Your task to perform on an android device: open app "Spotify: Music and Podcasts" Image 0: 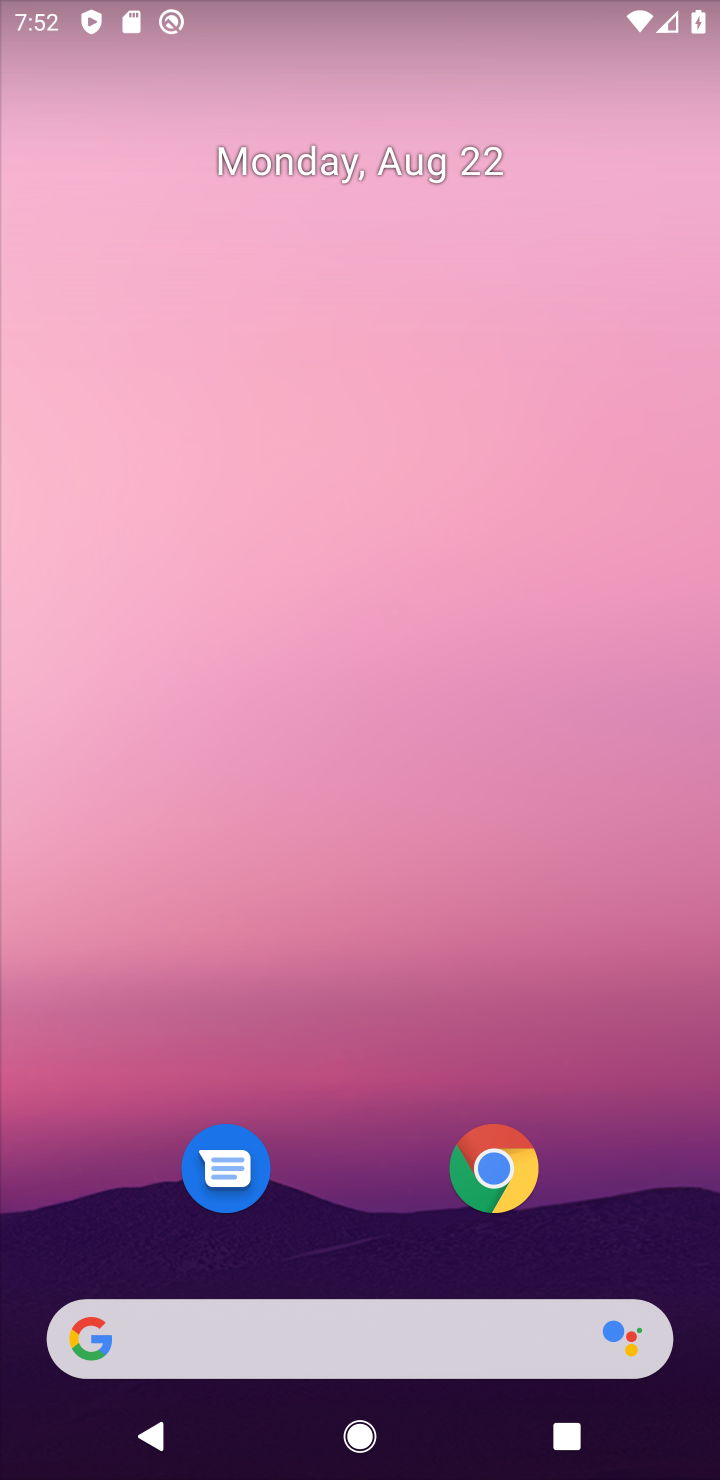
Step 0: drag from (598, 630) to (549, 10)
Your task to perform on an android device: open app "Spotify: Music and Podcasts" Image 1: 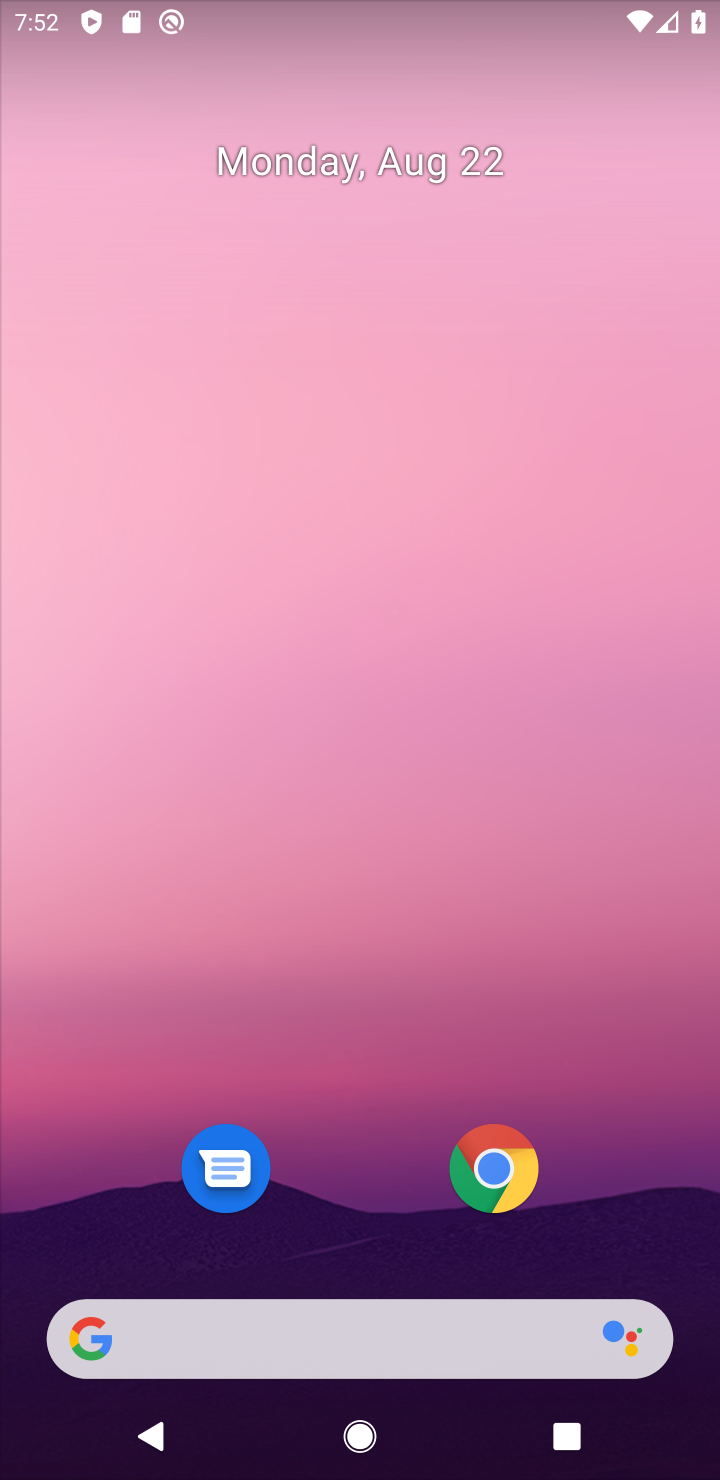
Step 1: drag from (674, 1243) to (616, 184)
Your task to perform on an android device: open app "Spotify: Music and Podcasts" Image 2: 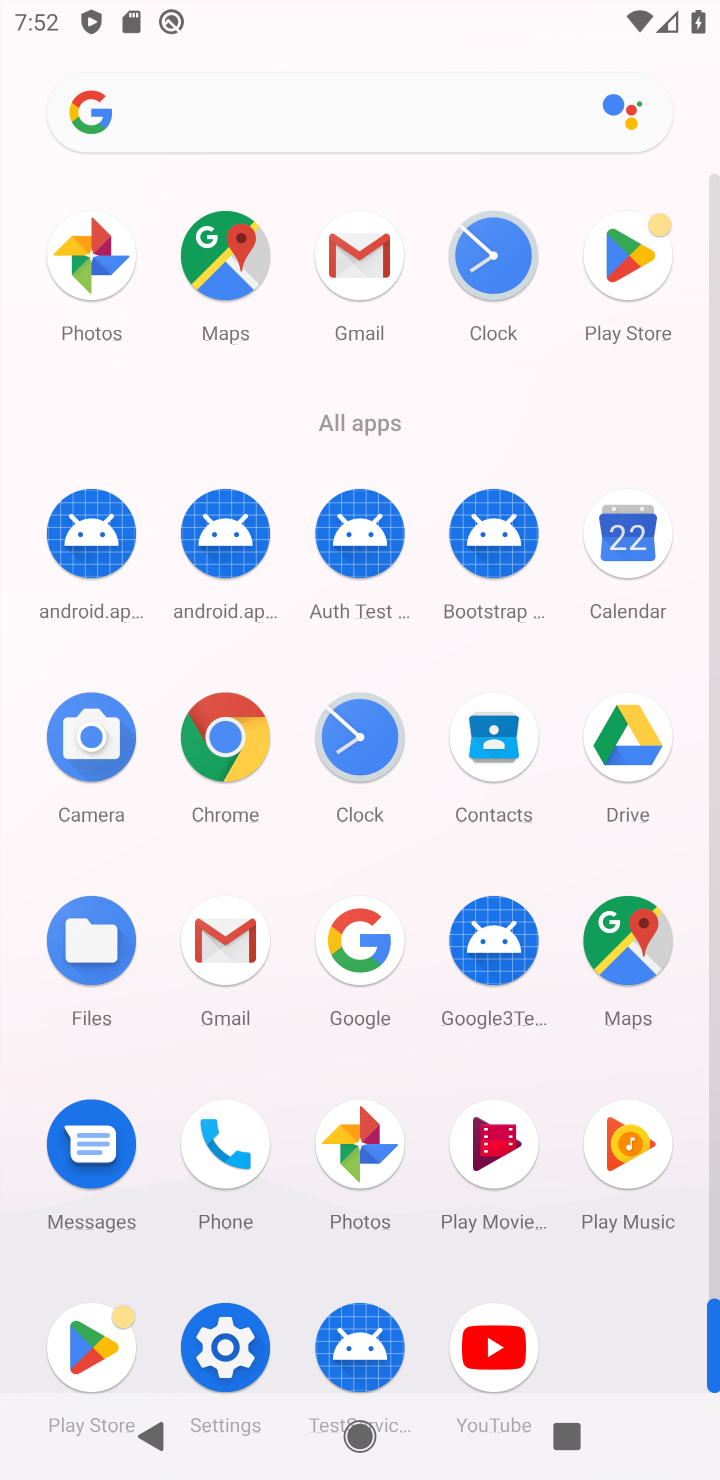
Step 2: click (629, 261)
Your task to perform on an android device: open app "Spotify: Music and Podcasts" Image 3: 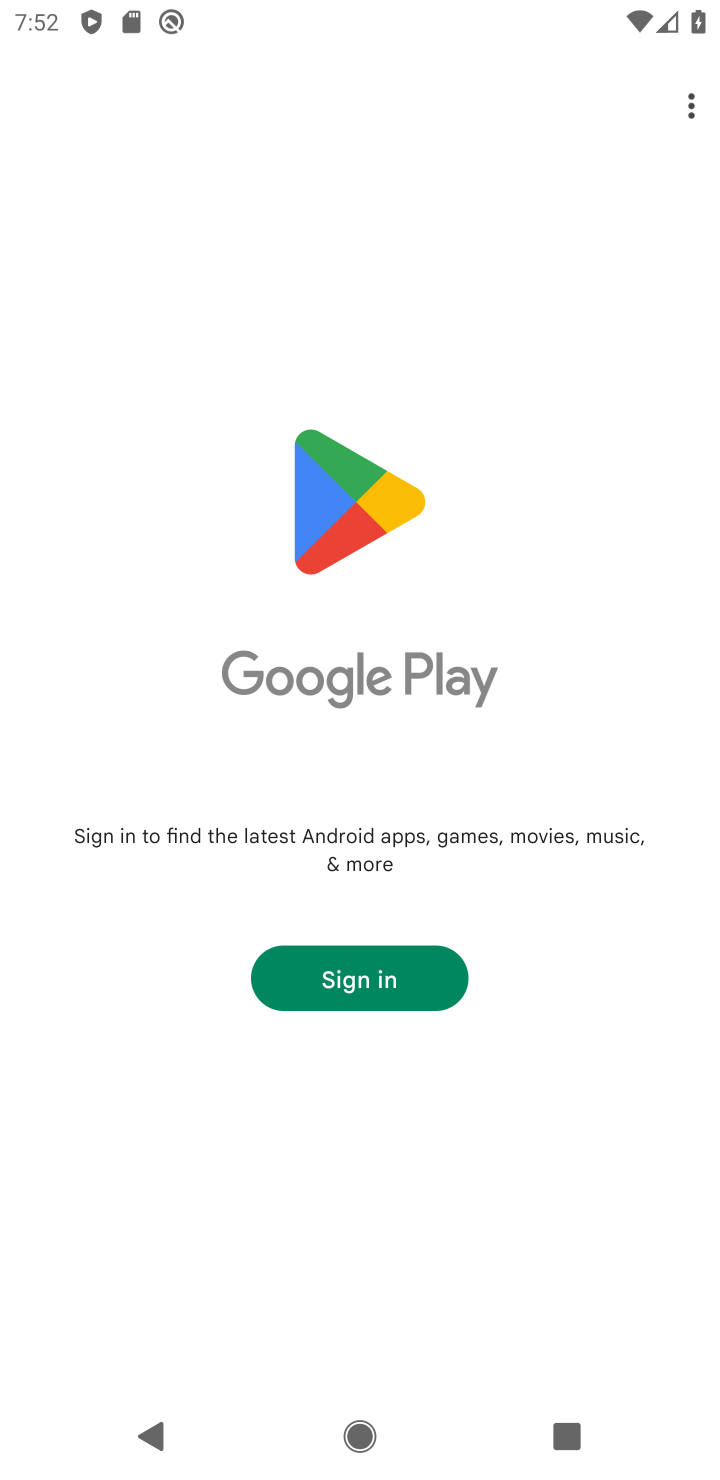
Step 3: drag from (552, 925) to (568, 235)
Your task to perform on an android device: open app "Spotify: Music and Podcasts" Image 4: 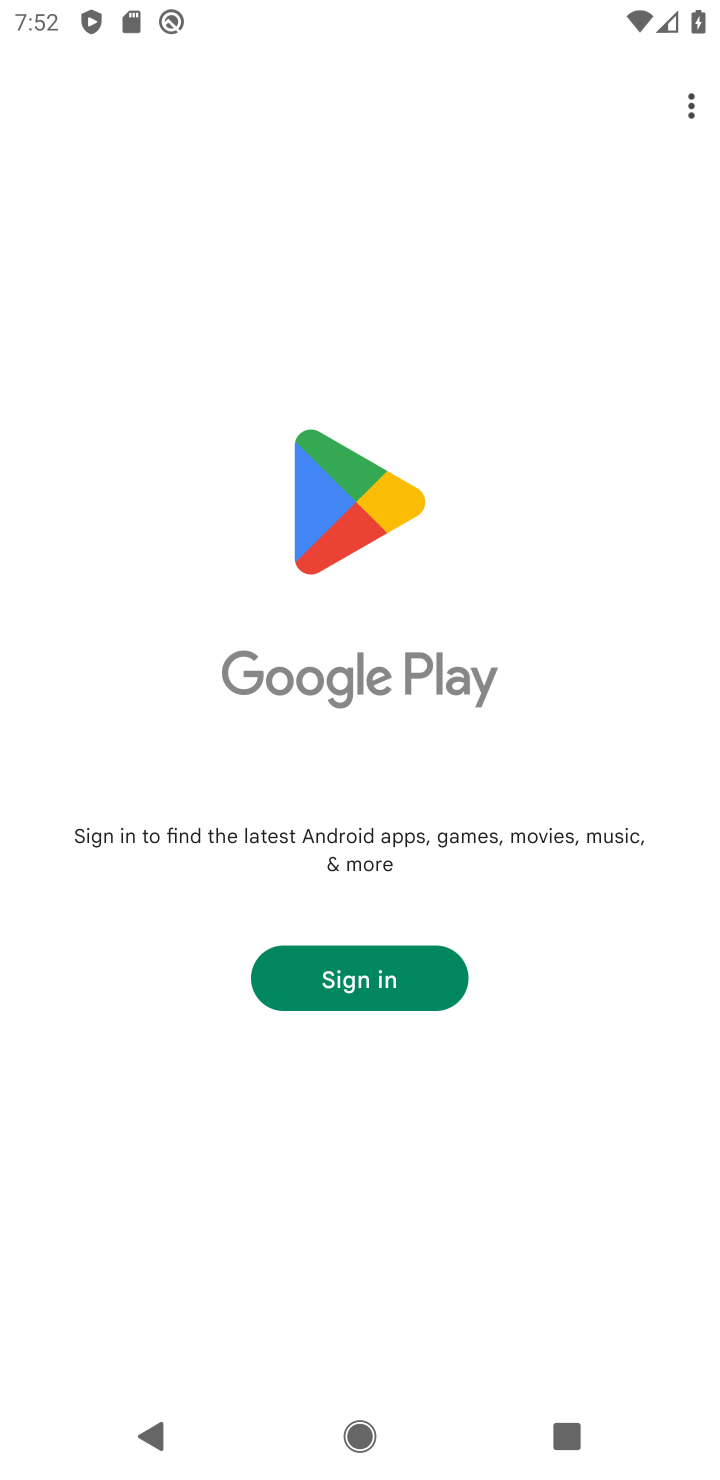
Step 4: click (353, 978)
Your task to perform on an android device: open app "Spotify: Music and Podcasts" Image 5: 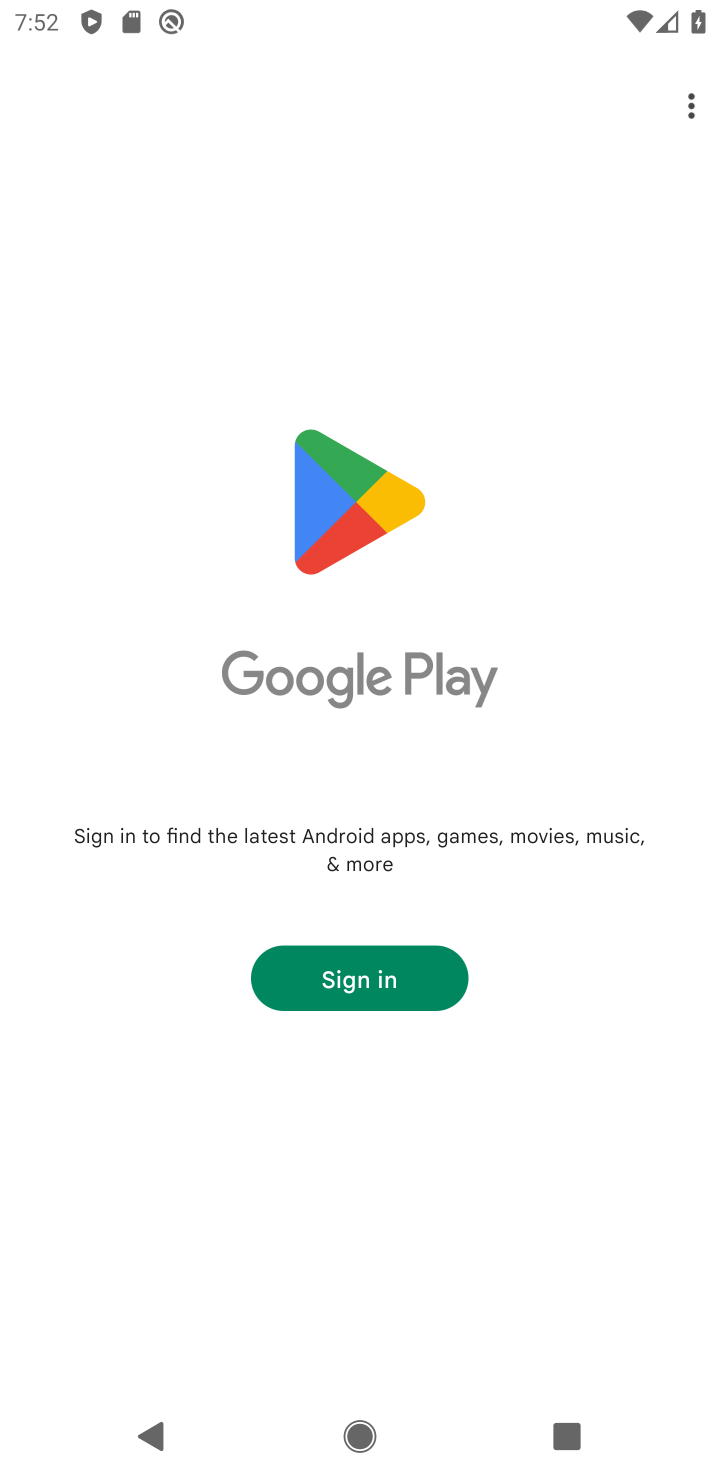
Step 5: click (694, 113)
Your task to perform on an android device: open app "Spotify: Music and Podcasts" Image 6: 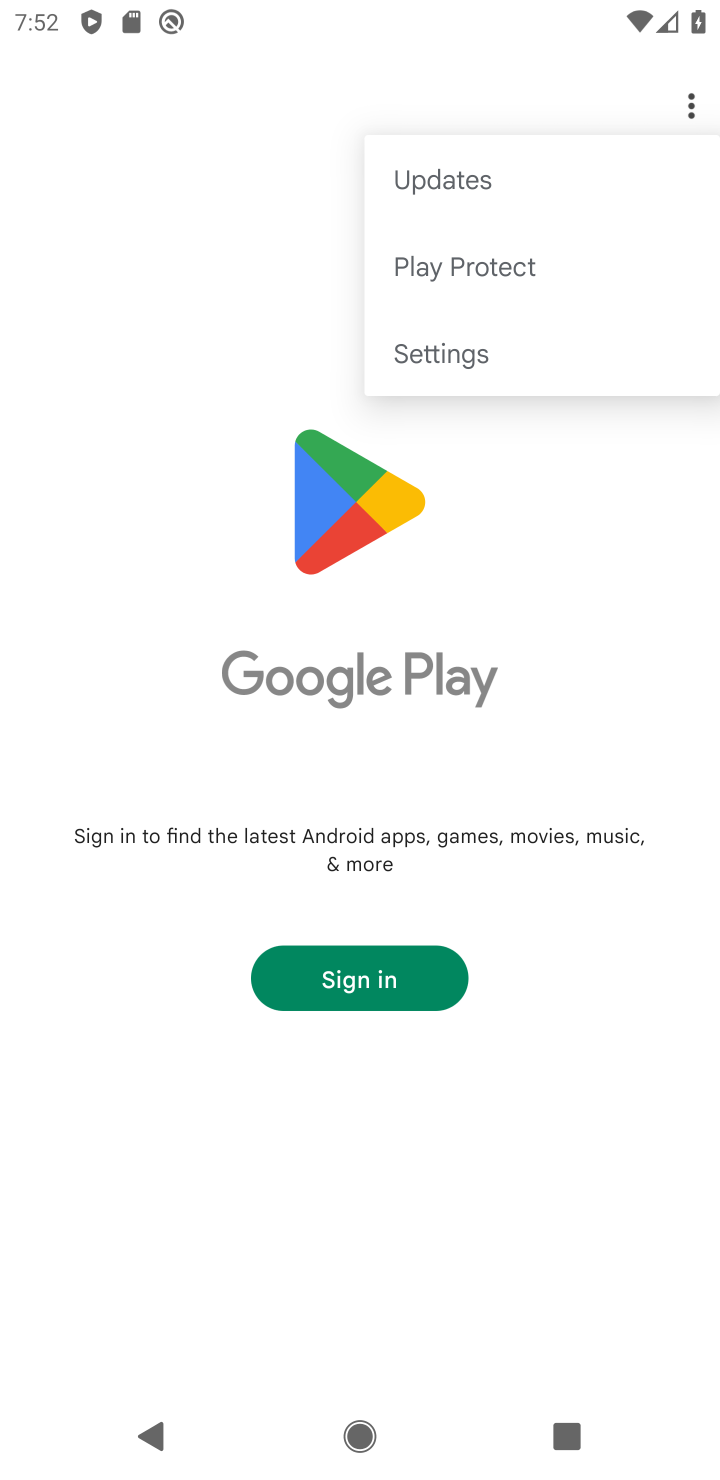
Step 6: task complete